Your task to perform on an android device: Search for Italian restaurants on Maps Image 0: 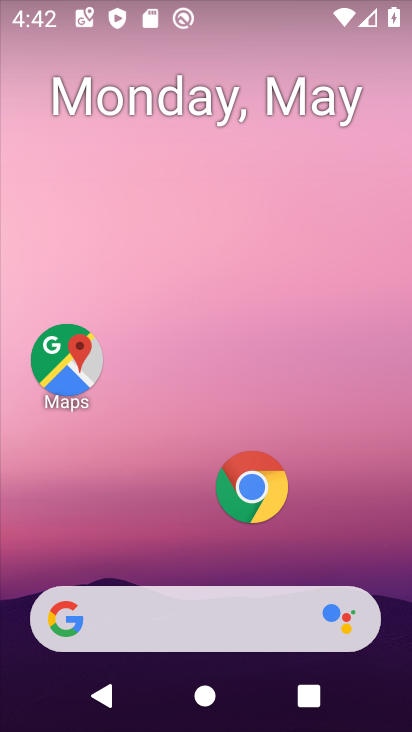
Step 0: click (55, 385)
Your task to perform on an android device: Search for Italian restaurants on Maps Image 1: 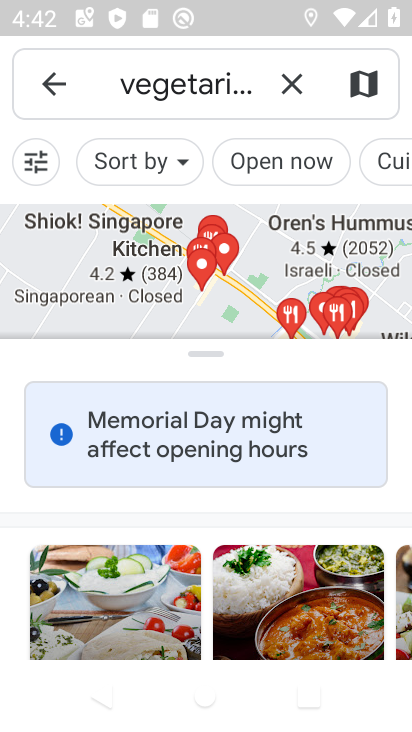
Step 1: click (297, 82)
Your task to perform on an android device: Search for Italian restaurants on Maps Image 2: 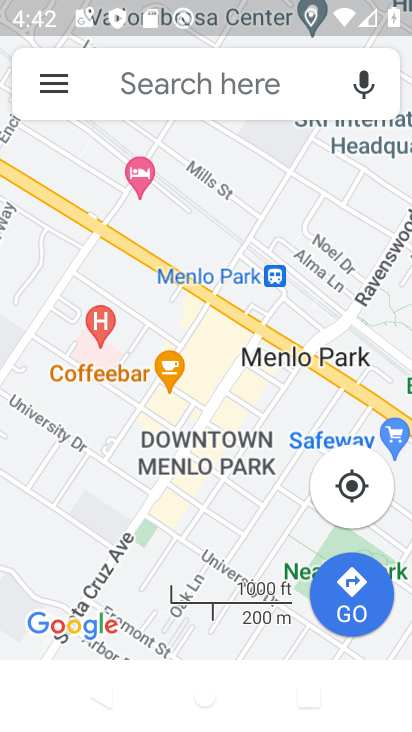
Step 2: drag from (224, 93) to (168, 96)
Your task to perform on an android device: Search for Italian restaurants on Maps Image 3: 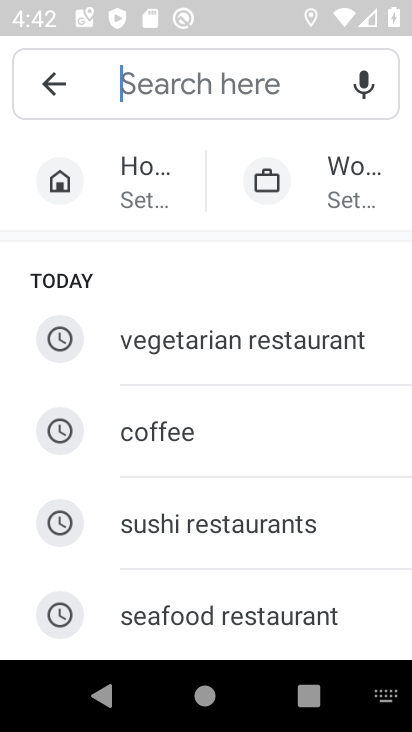
Step 3: type "italian restaurants"
Your task to perform on an android device: Search for Italian restaurants on Maps Image 4: 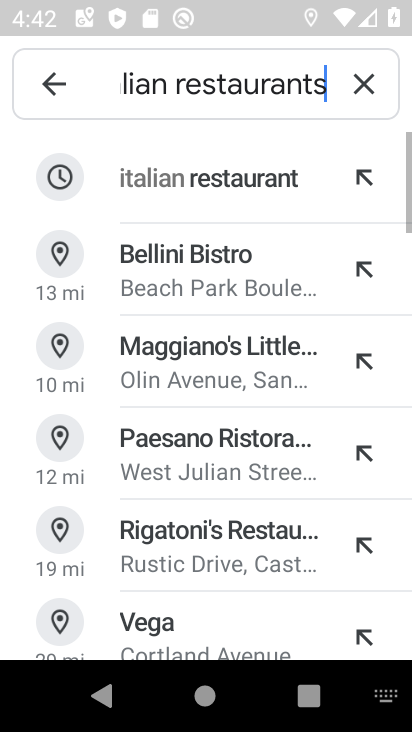
Step 4: click (248, 207)
Your task to perform on an android device: Search for Italian restaurants on Maps Image 5: 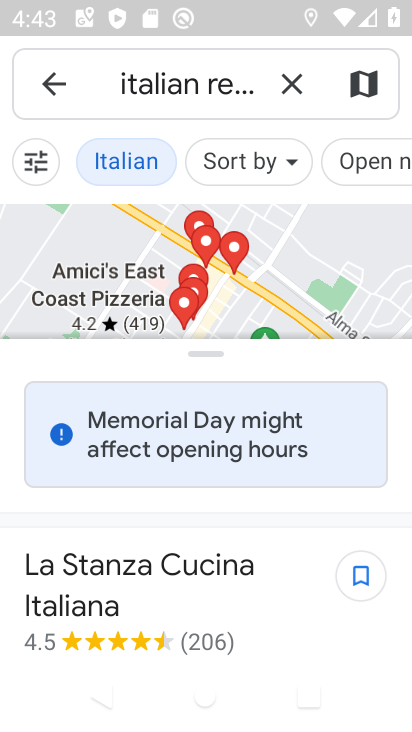
Step 5: task complete